Your task to perform on an android device: Go to calendar. Show me events next week Image 0: 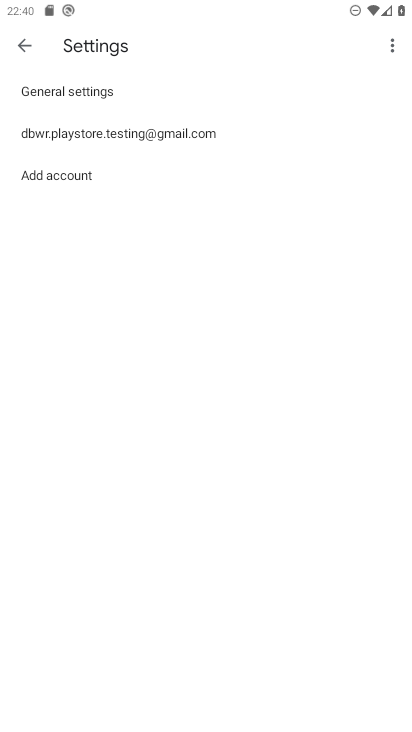
Step 0: press home button
Your task to perform on an android device: Go to calendar. Show me events next week Image 1: 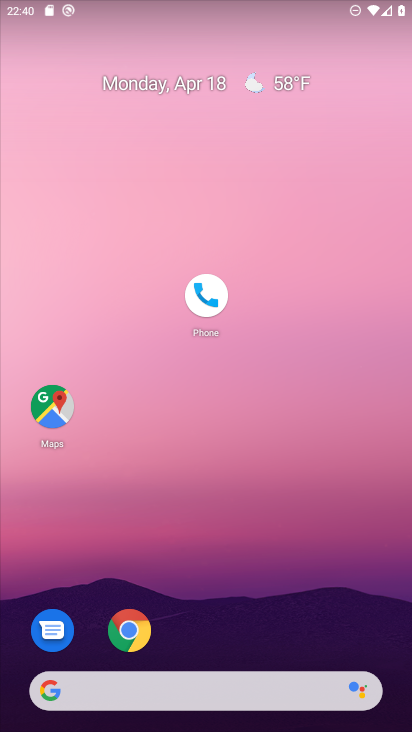
Step 1: drag from (339, 607) to (304, 167)
Your task to perform on an android device: Go to calendar. Show me events next week Image 2: 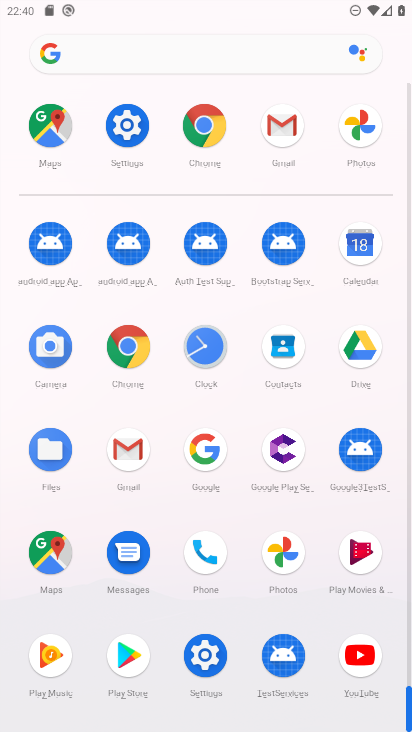
Step 2: drag from (317, 618) to (318, 328)
Your task to perform on an android device: Go to calendar. Show me events next week Image 3: 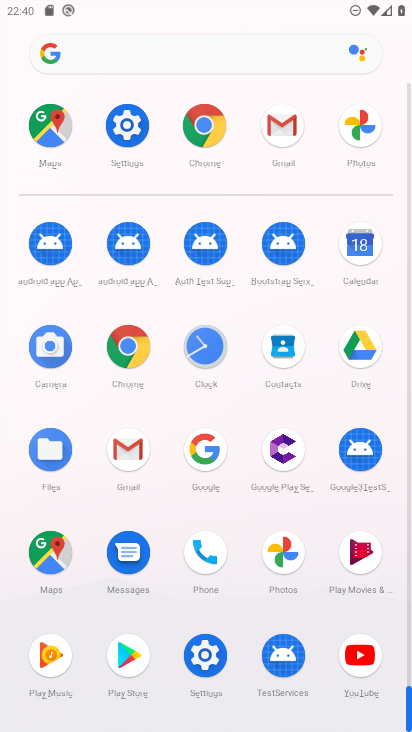
Step 3: click (367, 248)
Your task to perform on an android device: Go to calendar. Show me events next week Image 4: 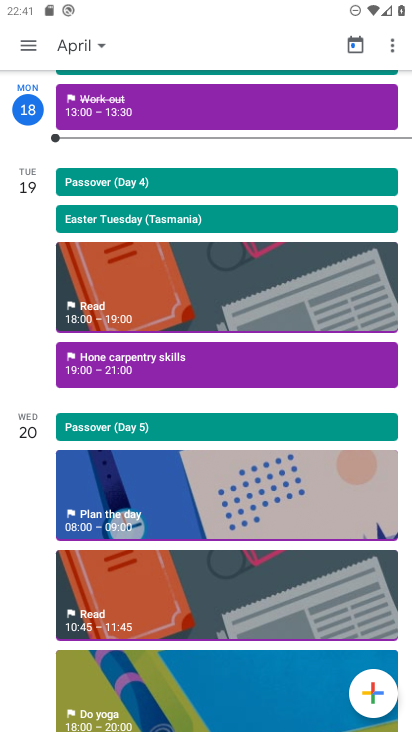
Step 4: click (81, 46)
Your task to perform on an android device: Go to calendar. Show me events next week Image 5: 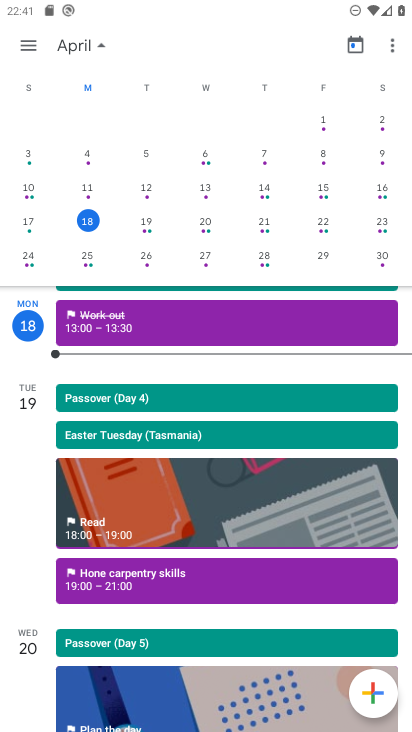
Step 5: click (142, 260)
Your task to perform on an android device: Go to calendar. Show me events next week Image 6: 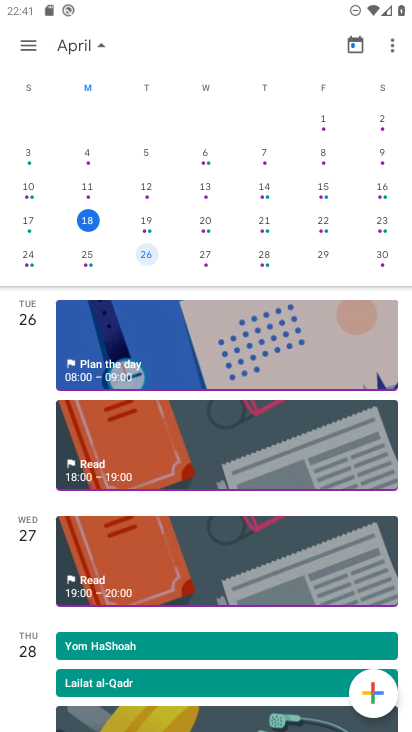
Step 6: task complete